Your task to perform on an android device: Open the map Image 0: 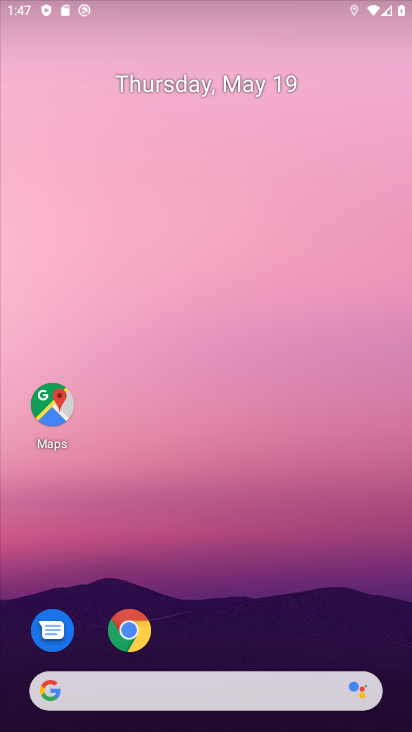
Step 0: drag from (256, 571) to (187, 0)
Your task to perform on an android device: Open the map Image 1: 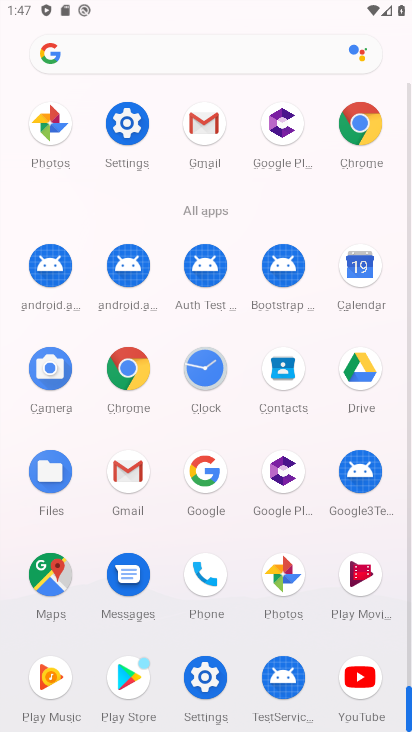
Step 1: drag from (9, 539) to (9, 267)
Your task to perform on an android device: Open the map Image 2: 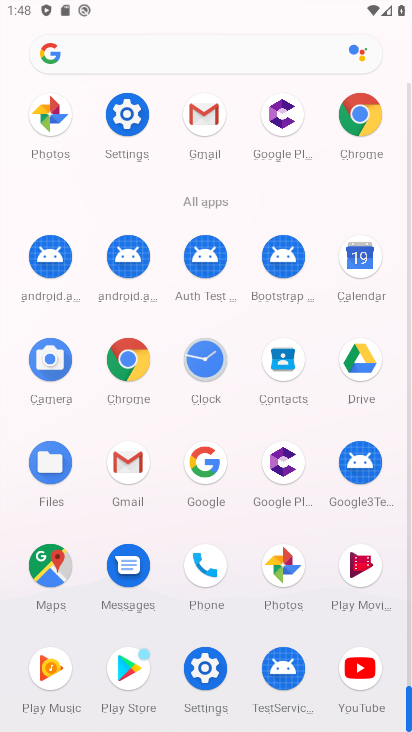
Step 2: drag from (13, 553) to (16, 199)
Your task to perform on an android device: Open the map Image 3: 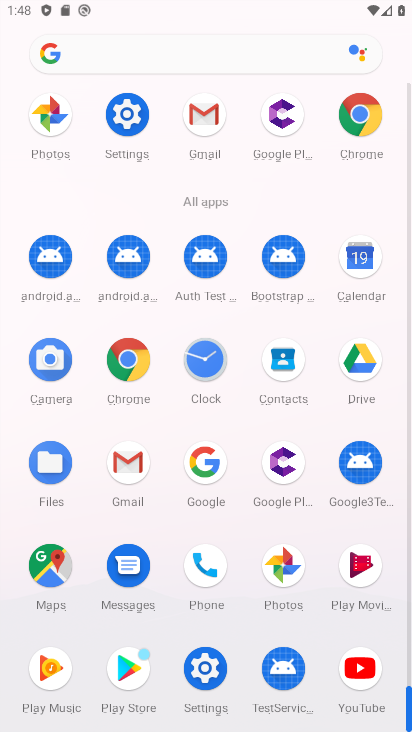
Step 3: click (45, 561)
Your task to perform on an android device: Open the map Image 4: 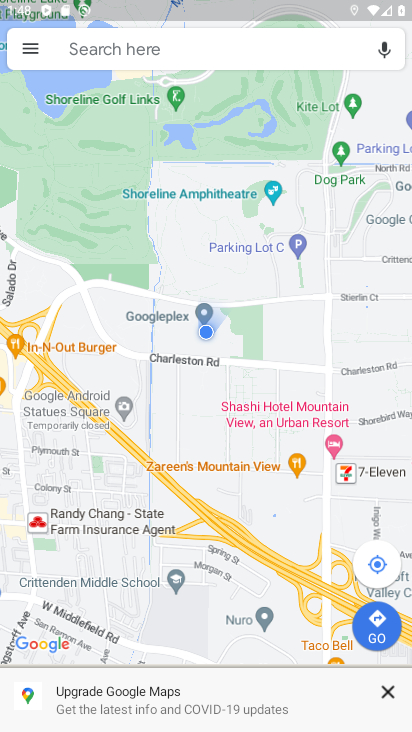
Step 4: task complete